Your task to perform on an android device: Open calendar and show me the fourth week of next month Image 0: 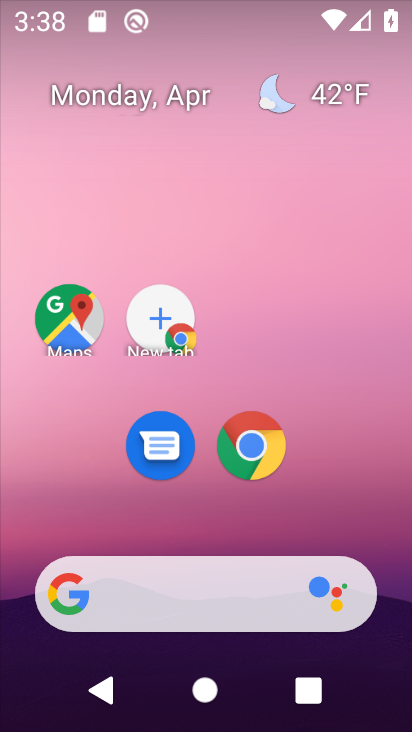
Step 0: drag from (223, 482) to (2, 123)
Your task to perform on an android device: Open calendar and show me the fourth week of next month Image 1: 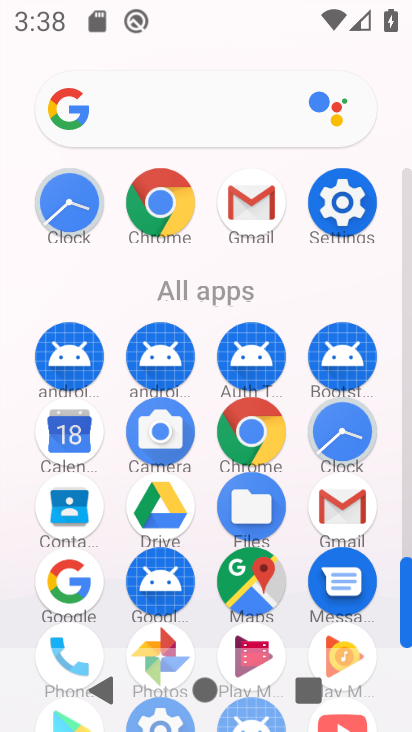
Step 1: click (65, 437)
Your task to perform on an android device: Open calendar and show me the fourth week of next month Image 2: 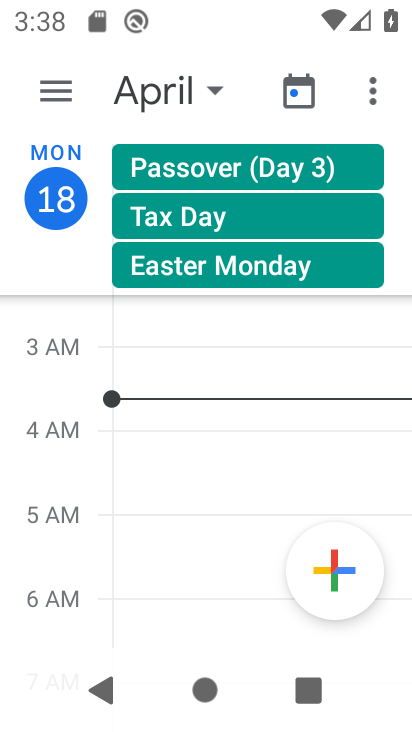
Step 2: click (47, 91)
Your task to perform on an android device: Open calendar and show me the fourth week of next month Image 3: 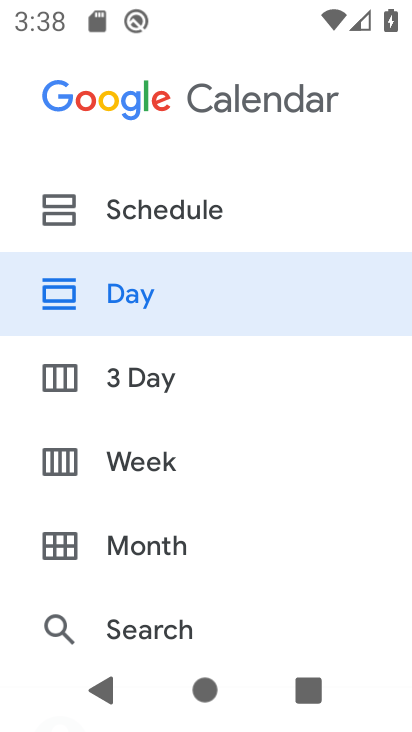
Step 3: click (145, 457)
Your task to perform on an android device: Open calendar and show me the fourth week of next month Image 4: 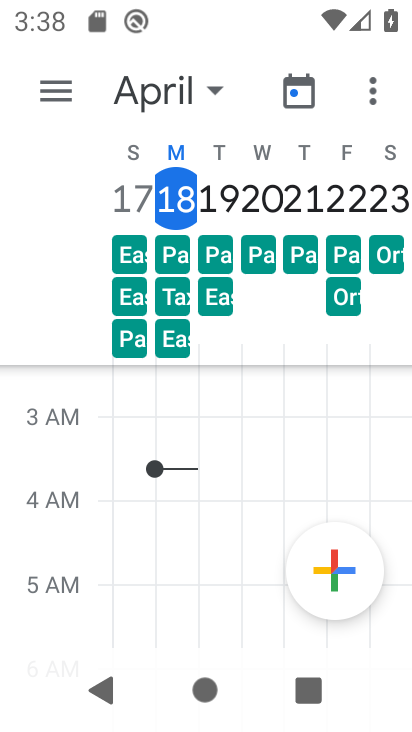
Step 4: drag from (388, 193) to (12, 199)
Your task to perform on an android device: Open calendar and show me the fourth week of next month Image 5: 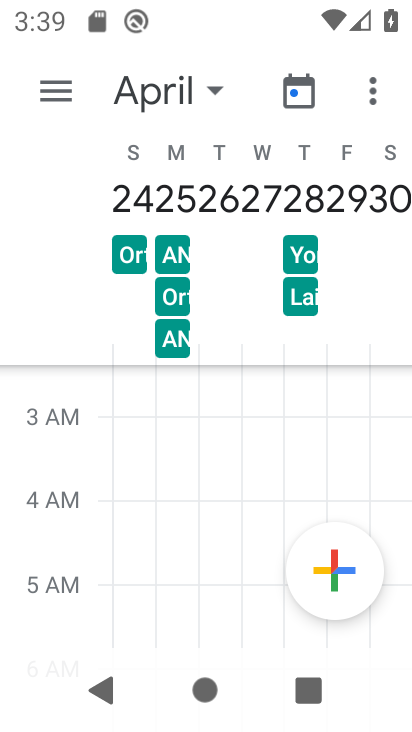
Step 5: drag from (388, 196) to (60, 194)
Your task to perform on an android device: Open calendar and show me the fourth week of next month Image 6: 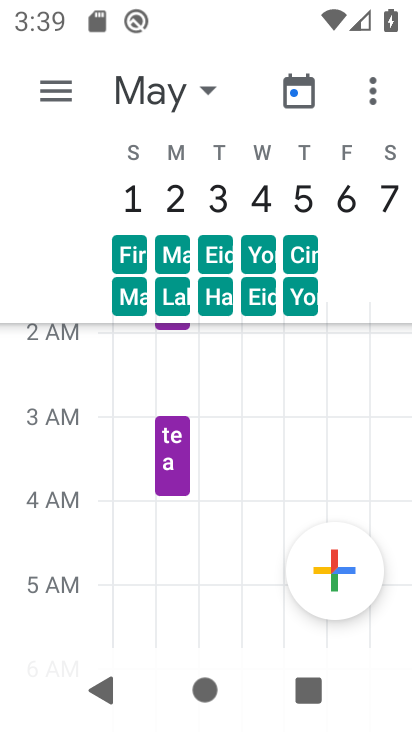
Step 6: drag from (395, 199) to (131, 210)
Your task to perform on an android device: Open calendar and show me the fourth week of next month Image 7: 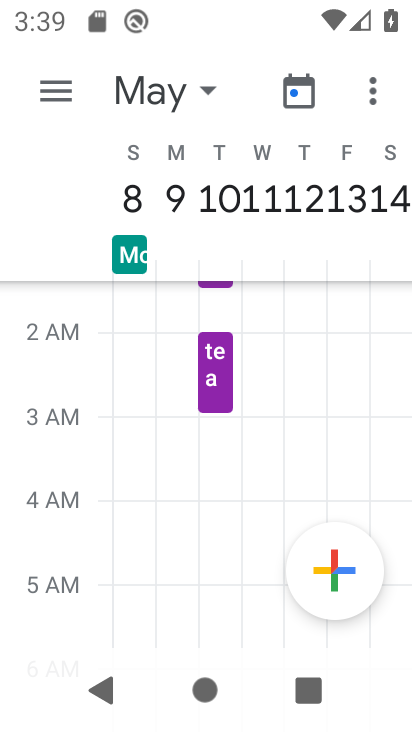
Step 7: drag from (391, 192) to (83, 212)
Your task to perform on an android device: Open calendar and show me the fourth week of next month Image 8: 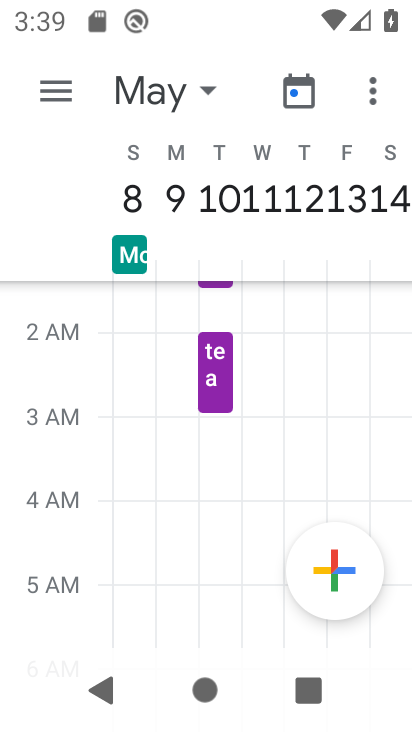
Step 8: drag from (393, 186) to (77, 201)
Your task to perform on an android device: Open calendar and show me the fourth week of next month Image 9: 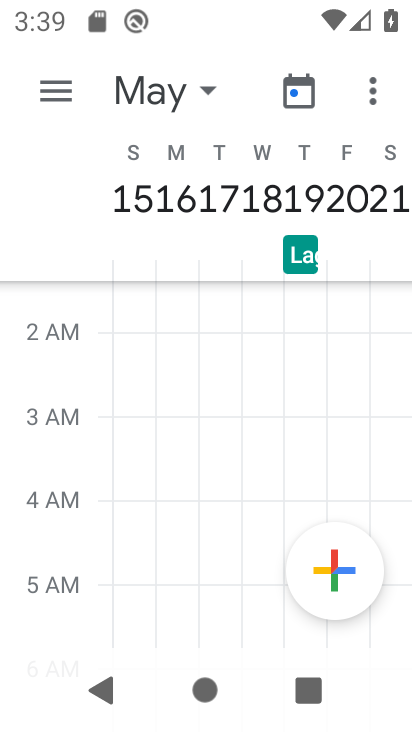
Step 9: drag from (383, 186) to (171, 186)
Your task to perform on an android device: Open calendar and show me the fourth week of next month Image 10: 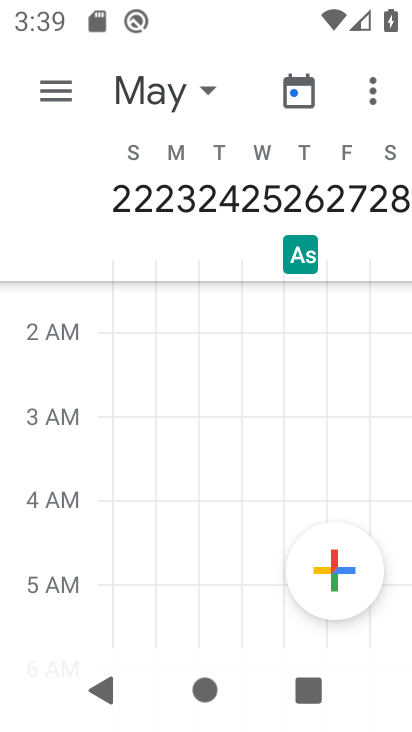
Step 10: click (133, 195)
Your task to perform on an android device: Open calendar and show me the fourth week of next month Image 11: 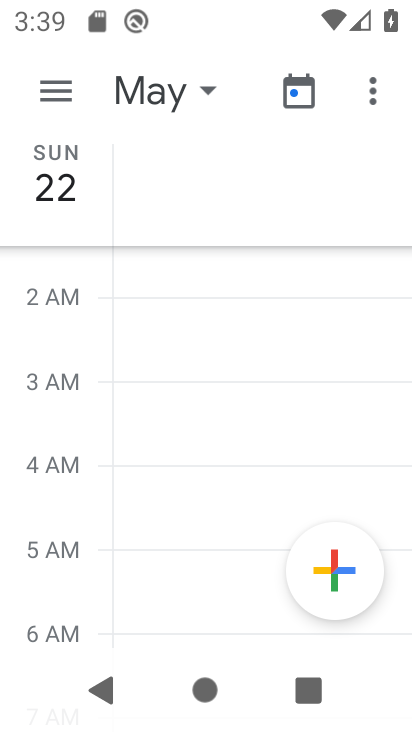
Step 11: click (69, 198)
Your task to perform on an android device: Open calendar and show me the fourth week of next month Image 12: 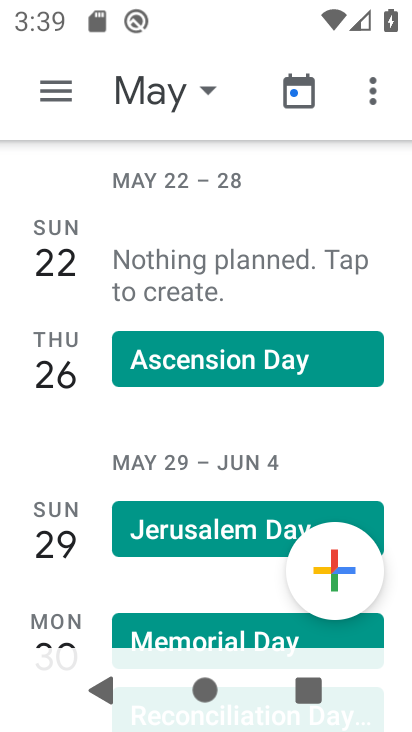
Step 12: task complete